Your task to perform on an android device: open a bookmark in the chrome app Image 0: 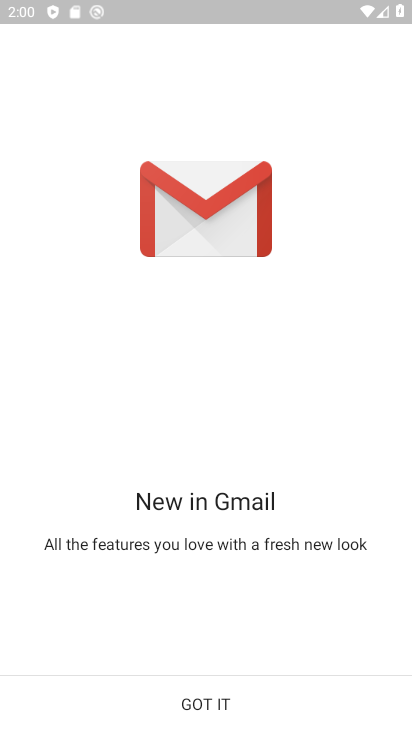
Step 0: press home button
Your task to perform on an android device: open a bookmark in the chrome app Image 1: 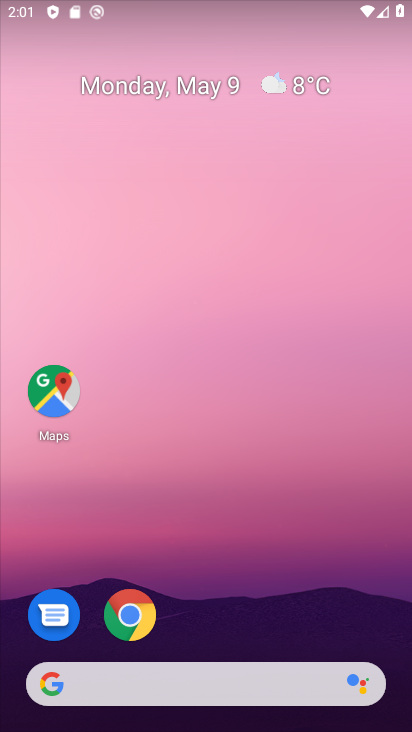
Step 1: click (143, 617)
Your task to perform on an android device: open a bookmark in the chrome app Image 2: 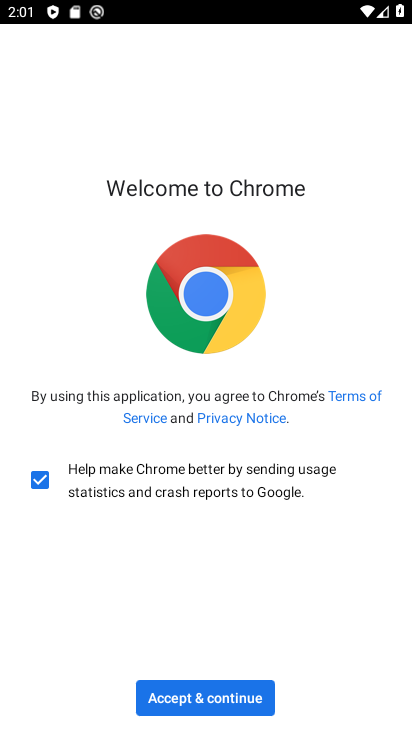
Step 2: click (219, 705)
Your task to perform on an android device: open a bookmark in the chrome app Image 3: 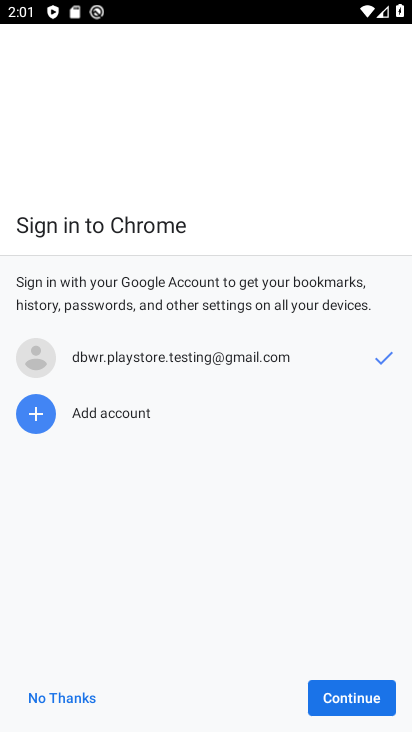
Step 3: click (329, 708)
Your task to perform on an android device: open a bookmark in the chrome app Image 4: 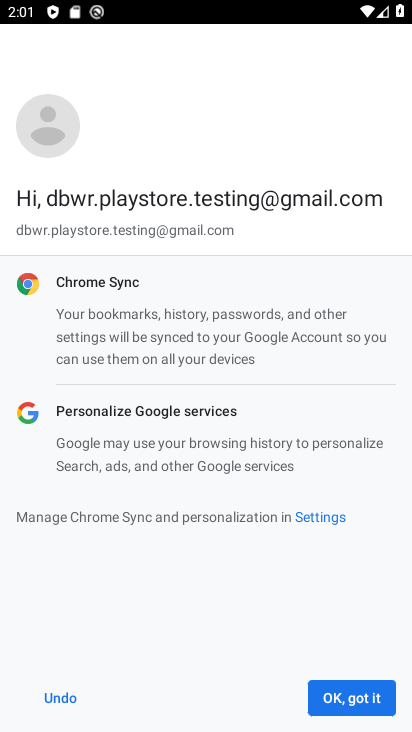
Step 4: click (329, 708)
Your task to perform on an android device: open a bookmark in the chrome app Image 5: 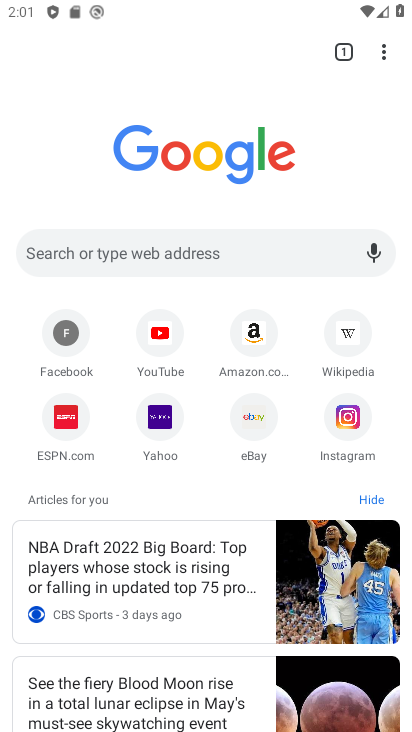
Step 5: click (384, 46)
Your task to perform on an android device: open a bookmark in the chrome app Image 6: 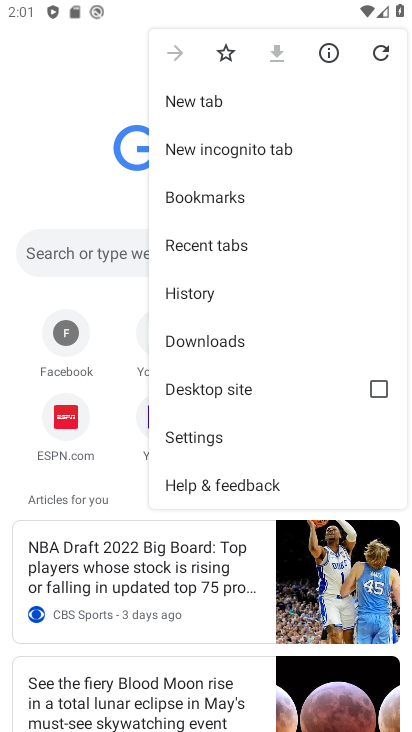
Step 6: click (249, 198)
Your task to perform on an android device: open a bookmark in the chrome app Image 7: 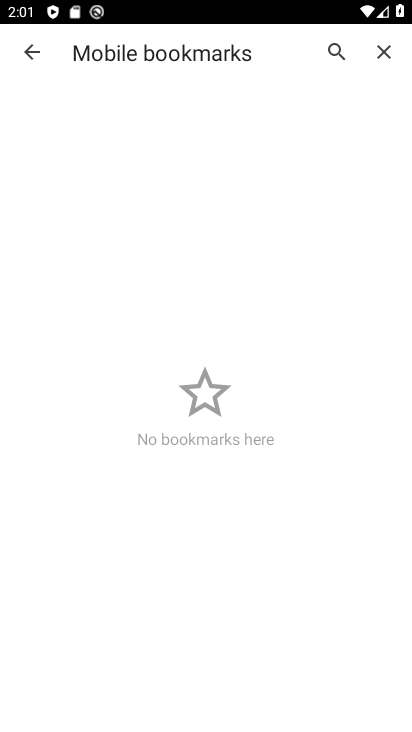
Step 7: task complete